Your task to perform on an android device: Go to Amazon Image 0: 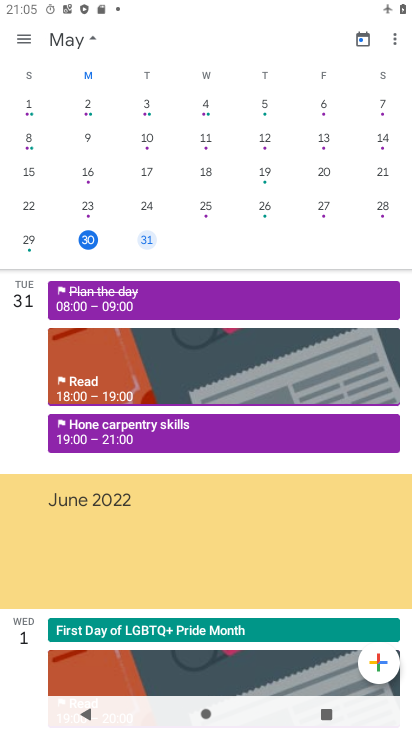
Step 0: press home button
Your task to perform on an android device: Go to Amazon Image 1: 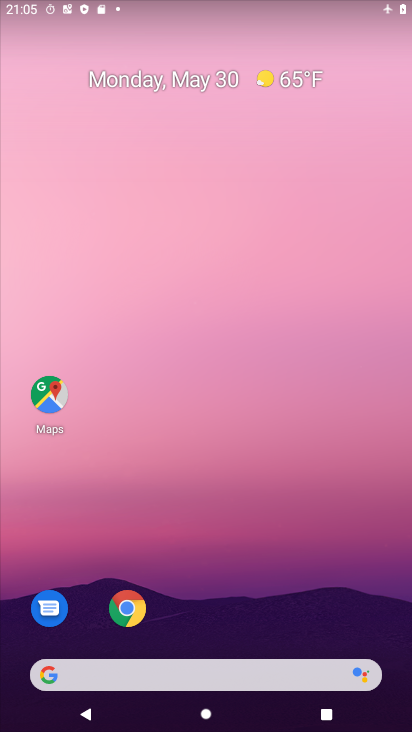
Step 1: click (124, 594)
Your task to perform on an android device: Go to Amazon Image 2: 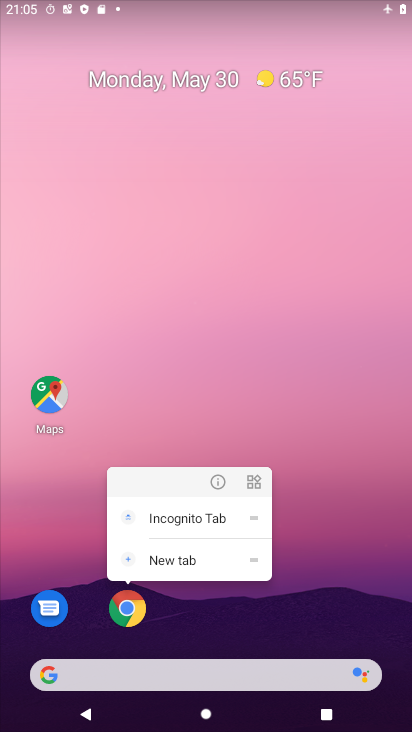
Step 2: click (136, 604)
Your task to perform on an android device: Go to Amazon Image 3: 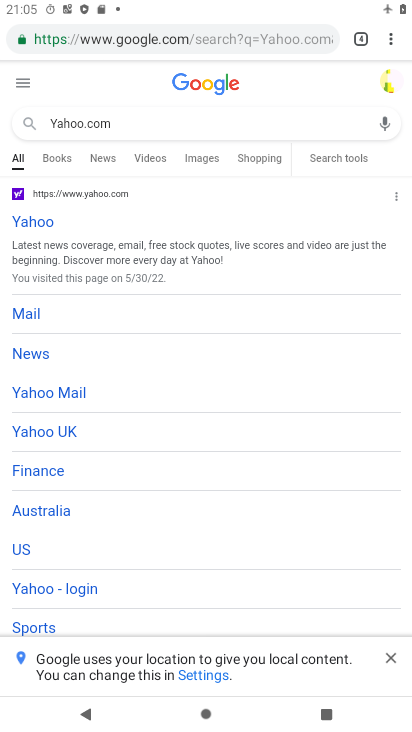
Step 3: click (353, 28)
Your task to perform on an android device: Go to Amazon Image 4: 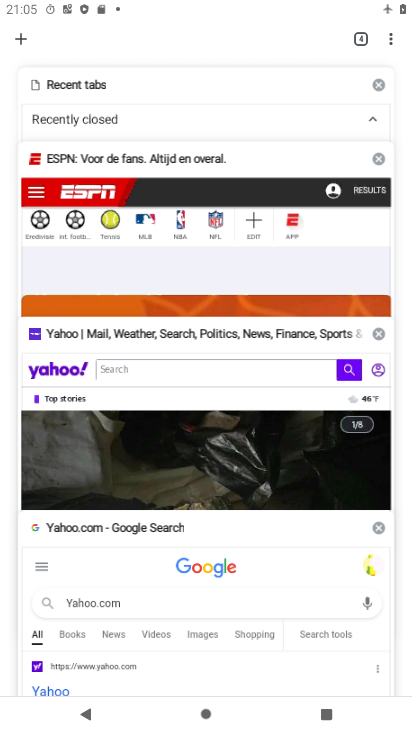
Step 4: click (14, 48)
Your task to perform on an android device: Go to Amazon Image 5: 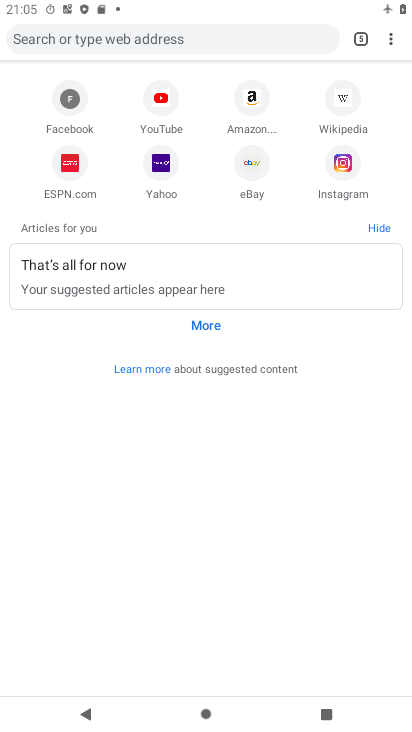
Step 5: click (250, 98)
Your task to perform on an android device: Go to Amazon Image 6: 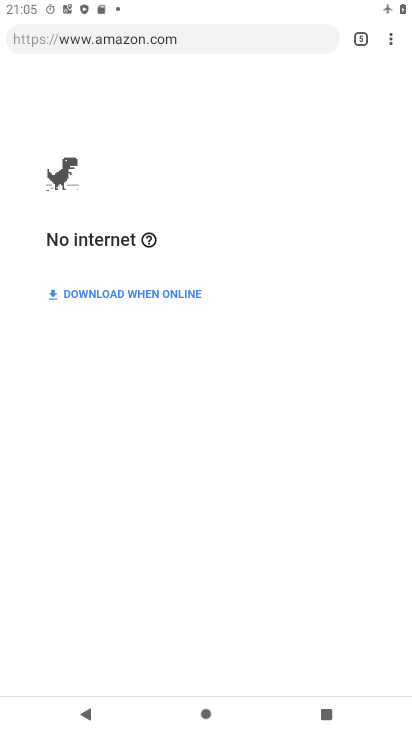
Step 6: task complete